Your task to perform on an android device: change alarm snooze length Image 0: 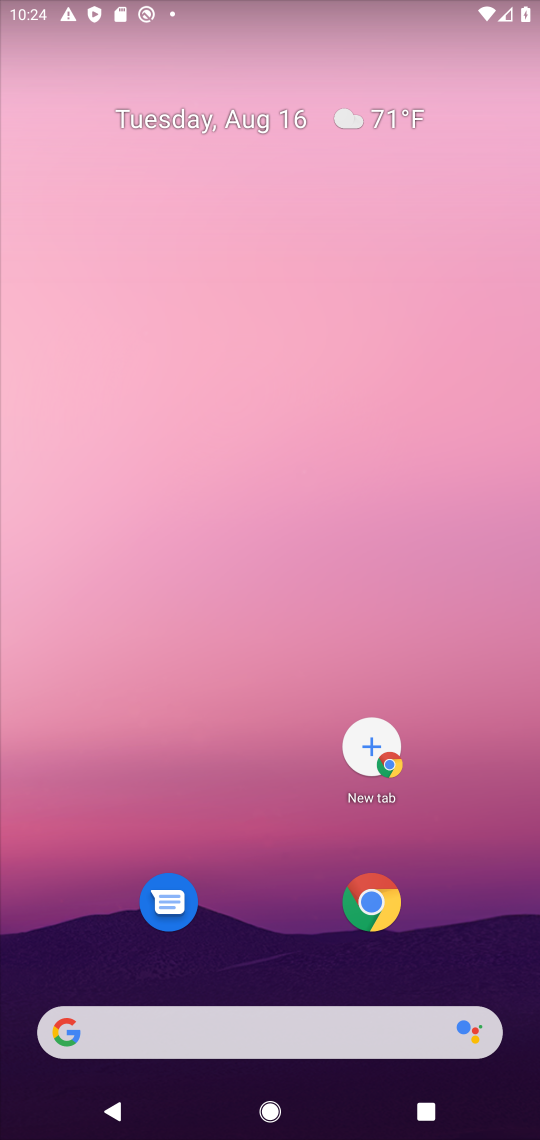
Step 0: drag from (205, 755) to (205, 197)
Your task to perform on an android device: change alarm snooze length Image 1: 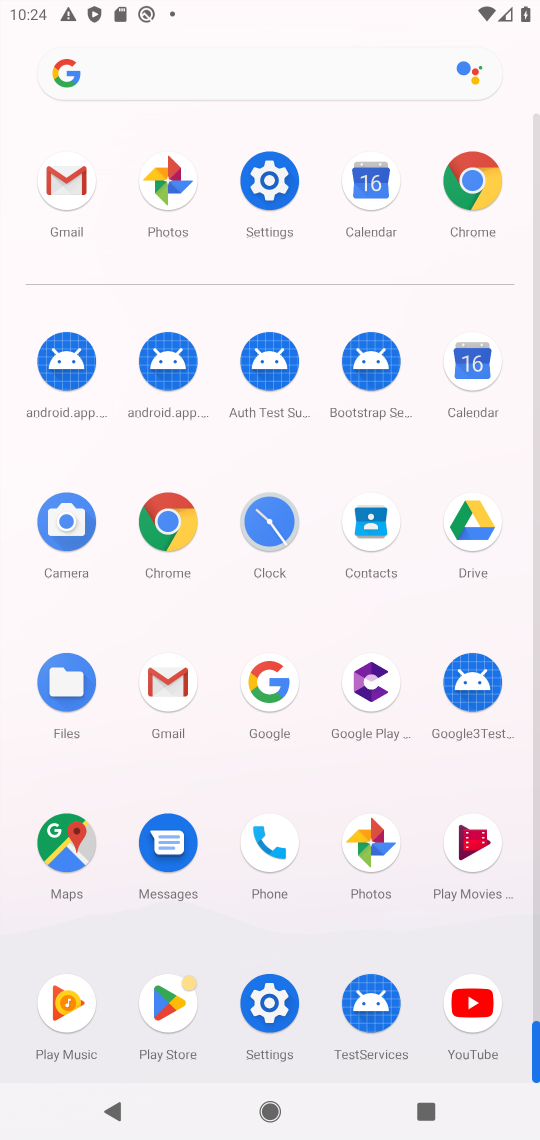
Step 1: click (266, 530)
Your task to perform on an android device: change alarm snooze length Image 2: 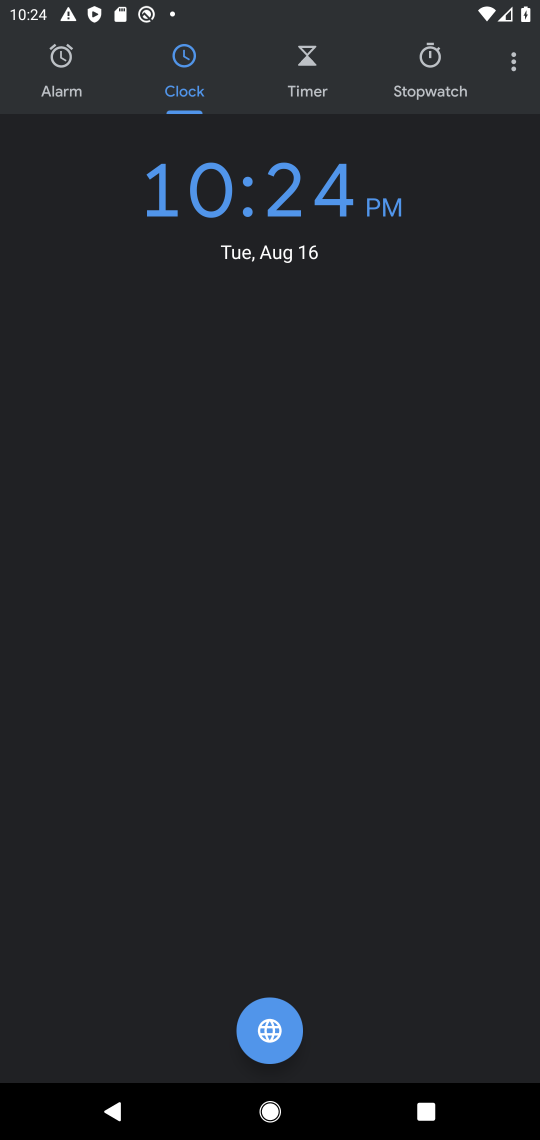
Step 2: click (520, 71)
Your task to perform on an android device: change alarm snooze length Image 3: 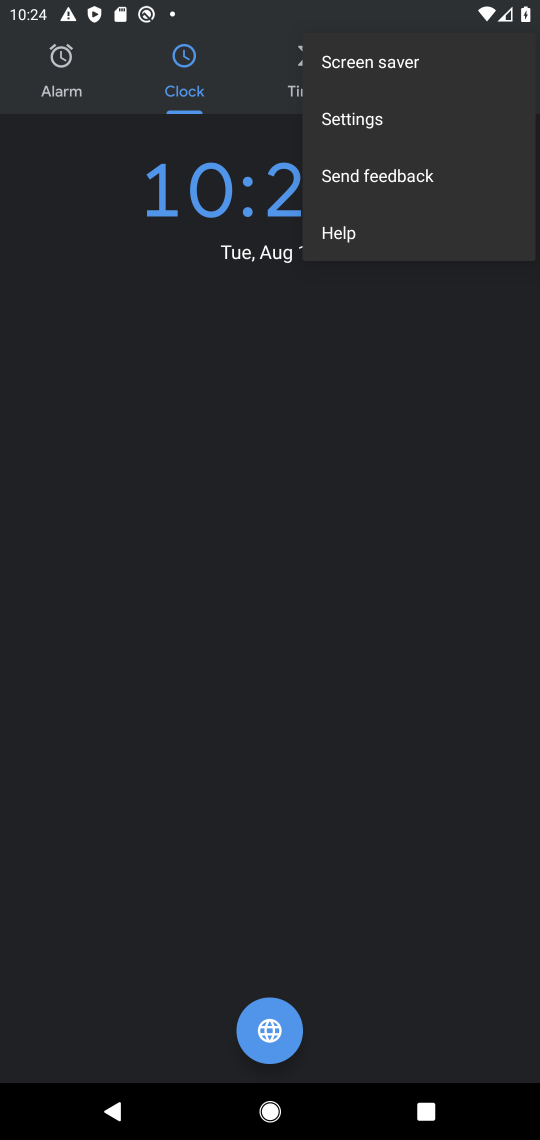
Step 3: click (387, 118)
Your task to perform on an android device: change alarm snooze length Image 4: 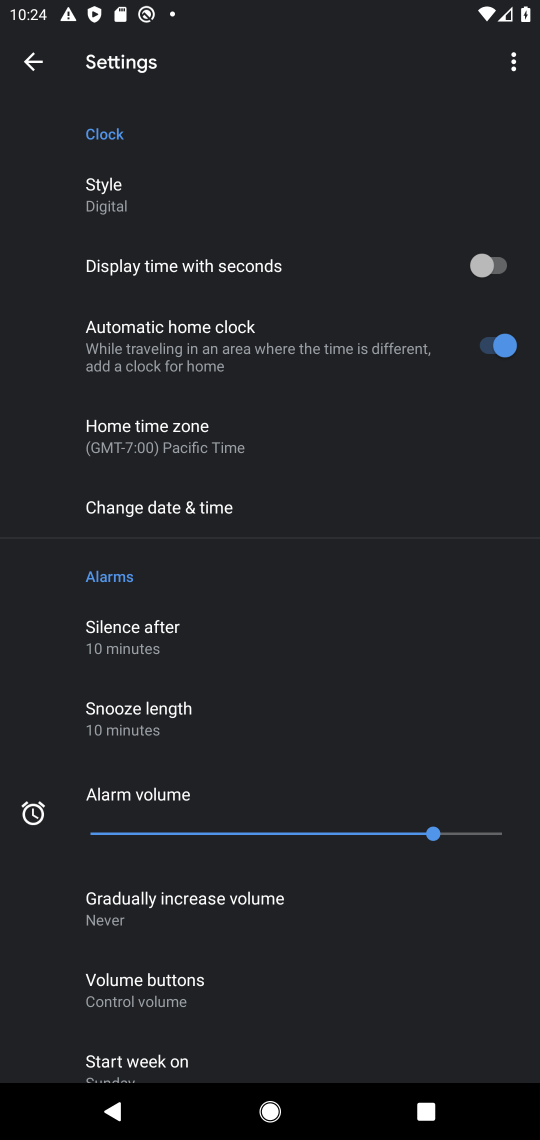
Step 4: drag from (129, 977) to (194, 324)
Your task to perform on an android device: change alarm snooze length Image 5: 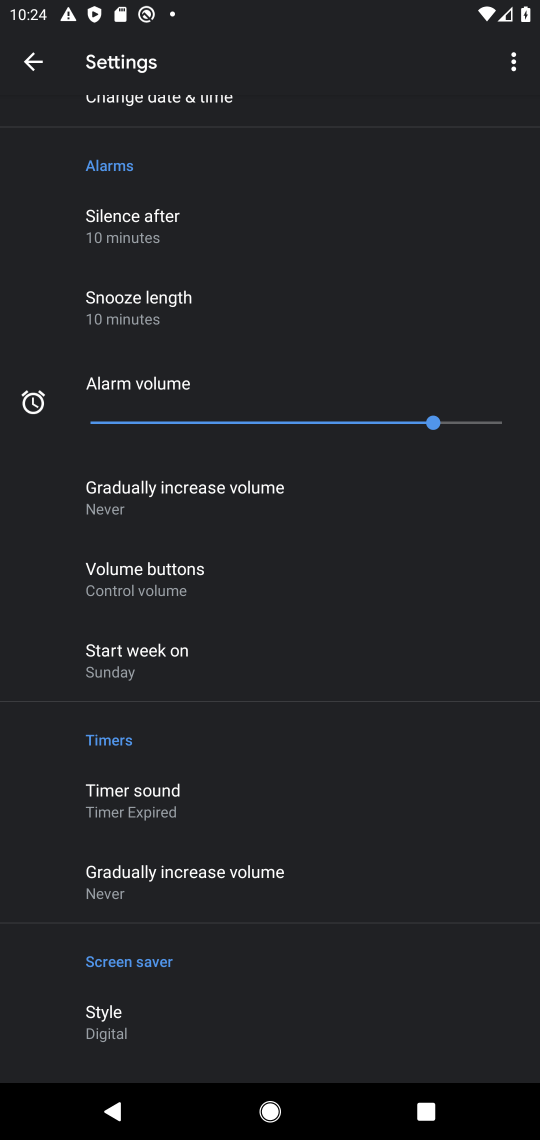
Step 5: click (120, 287)
Your task to perform on an android device: change alarm snooze length Image 6: 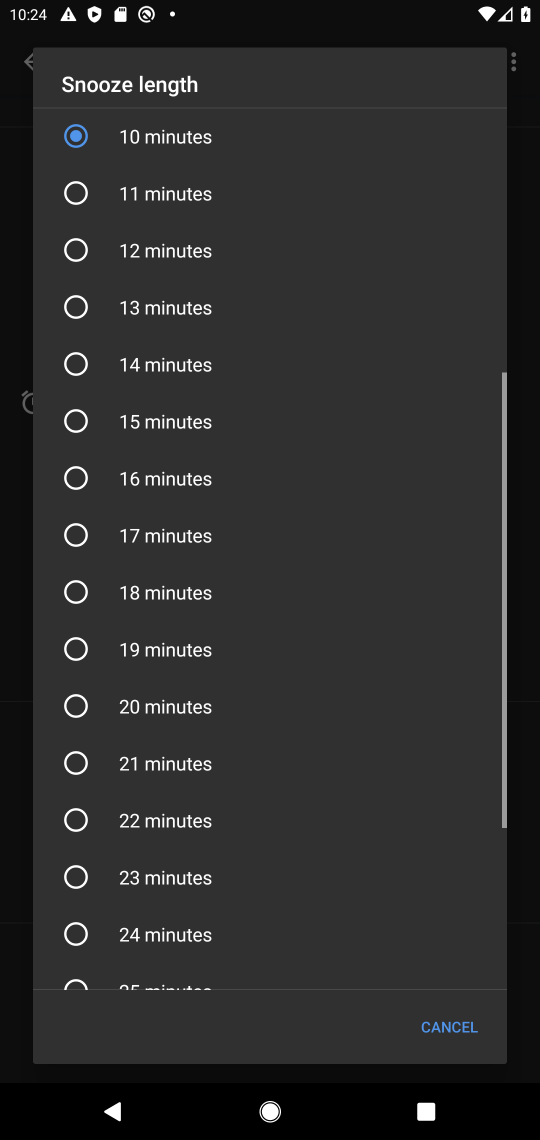
Step 6: click (136, 482)
Your task to perform on an android device: change alarm snooze length Image 7: 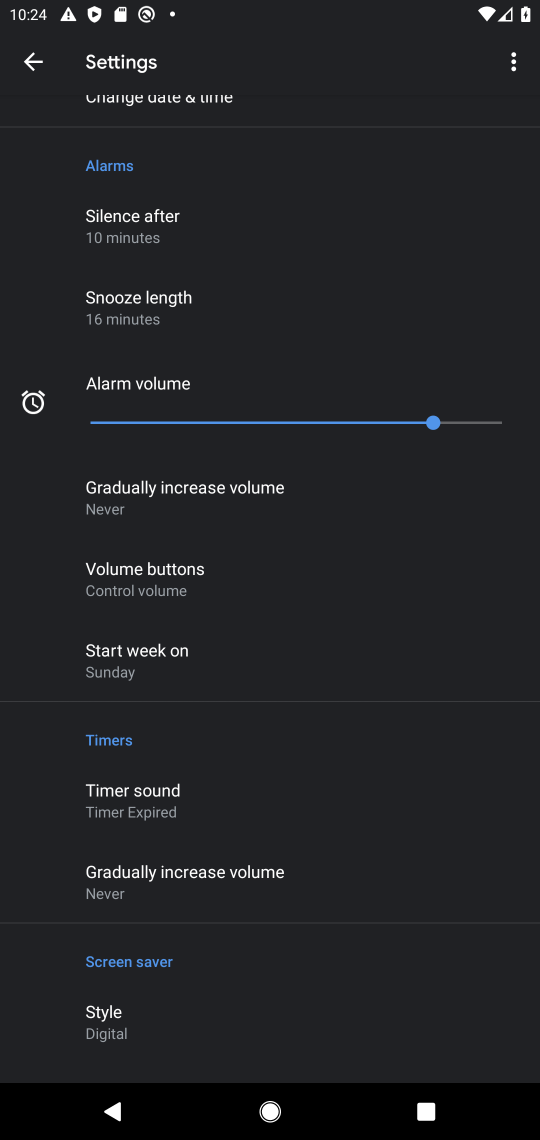
Step 7: task complete